Your task to perform on an android device: toggle data saver in the chrome app Image 0: 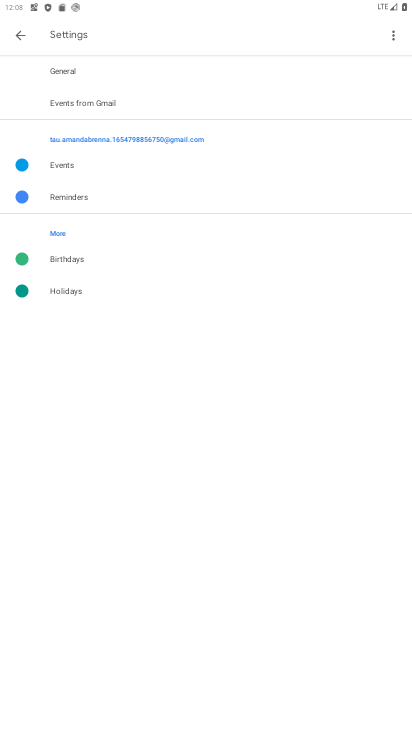
Step 0: press home button
Your task to perform on an android device: toggle data saver in the chrome app Image 1: 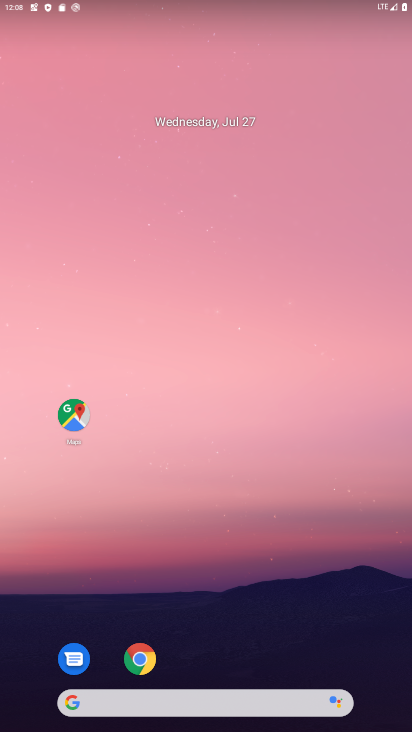
Step 1: click (128, 665)
Your task to perform on an android device: toggle data saver in the chrome app Image 2: 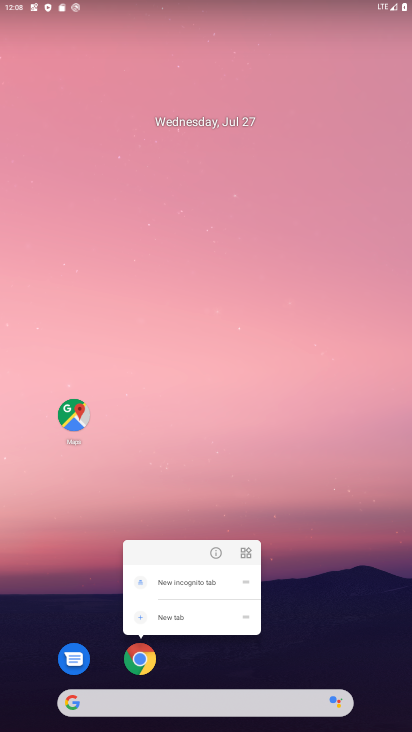
Step 2: click (139, 669)
Your task to perform on an android device: toggle data saver in the chrome app Image 3: 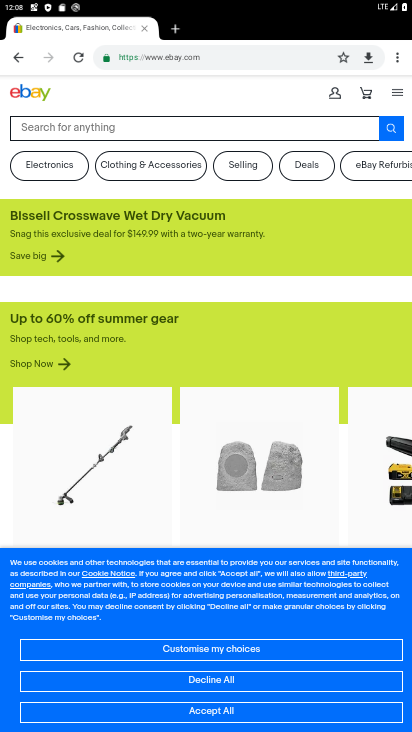
Step 3: click (397, 53)
Your task to perform on an android device: toggle data saver in the chrome app Image 4: 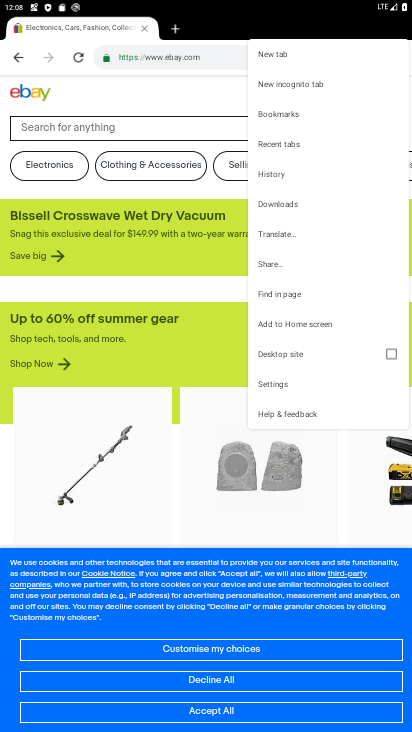
Step 4: click (293, 386)
Your task to perform on an android device: toggle data saver in the chrome app Image 5: 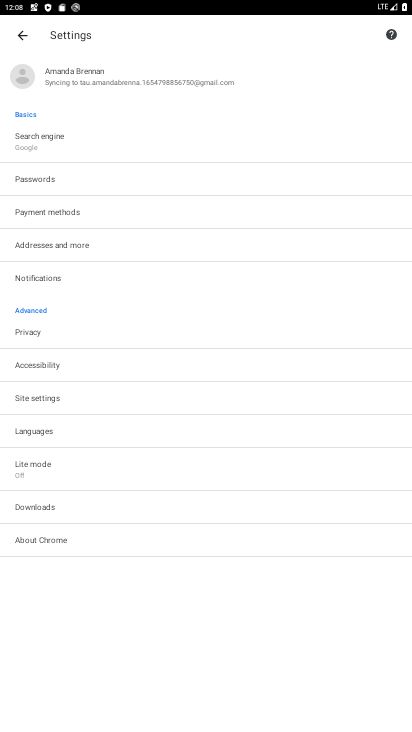
Step 5: click (51, 470)
Your task to perform on an android device: toggle data saver in the chrome app Image 6: 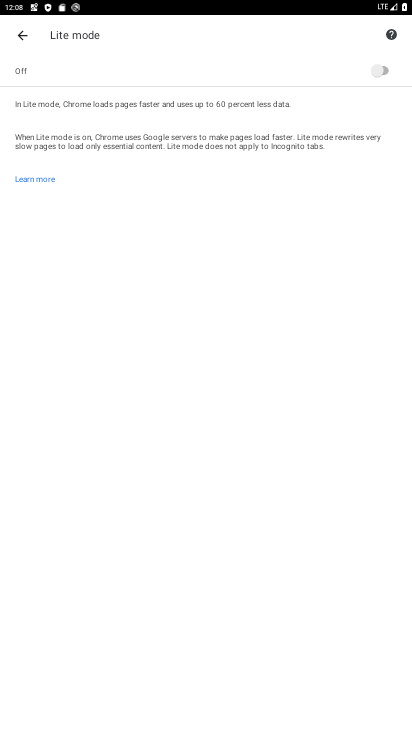
Step 6: click (386, 73)
Your task to perform on an android device: toggle data saver in the chrome app Image 7: 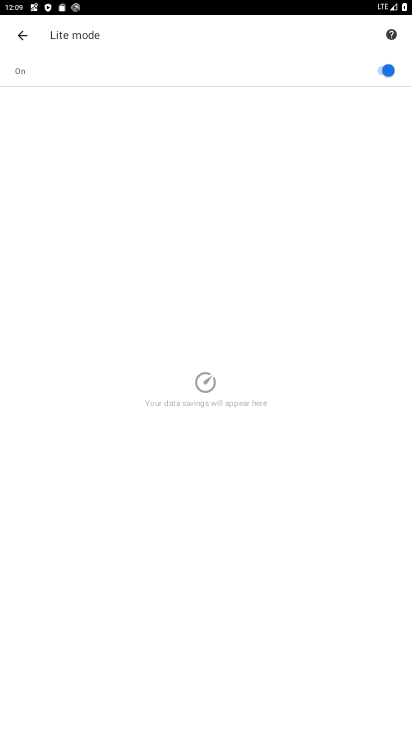
Step 7: task complete